Your task to perform on an android device: check battery use Image 0: 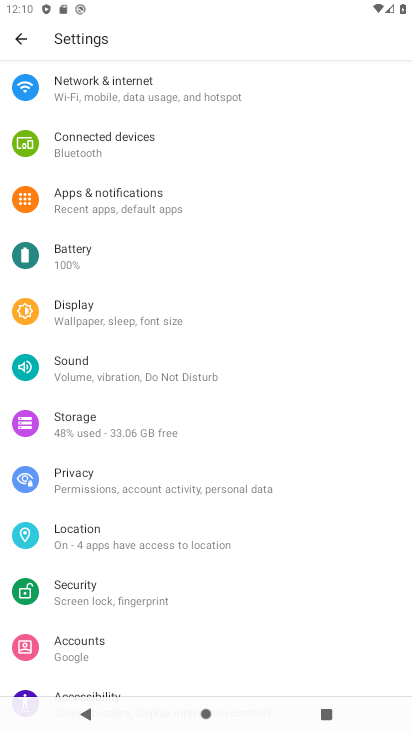
Step 0: press home button
Your task to perform on an android device: check battery use Image 1: 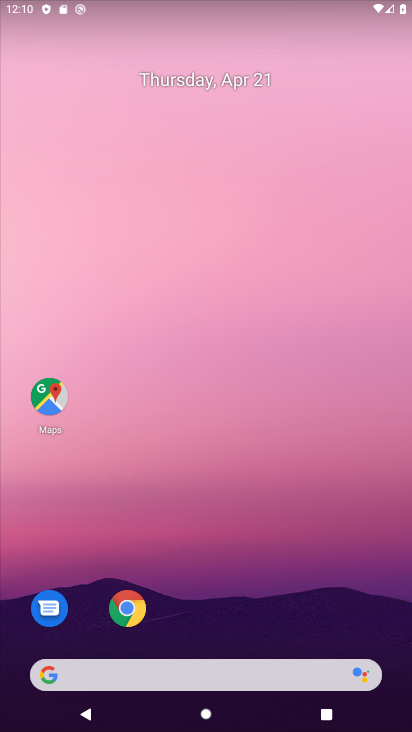
Step 1: drag from (201, 610) to (245, 240)
Your task to perform on an android device: check battery use Image 2: 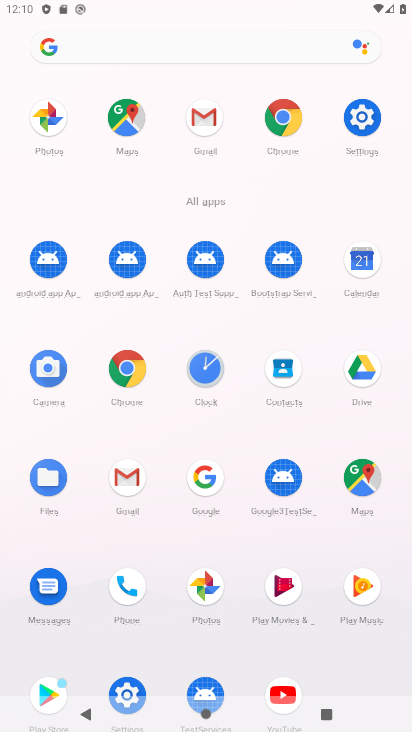
Step 2: click (364, 118)
Your task to perform on an android device: check battery use Image 3: 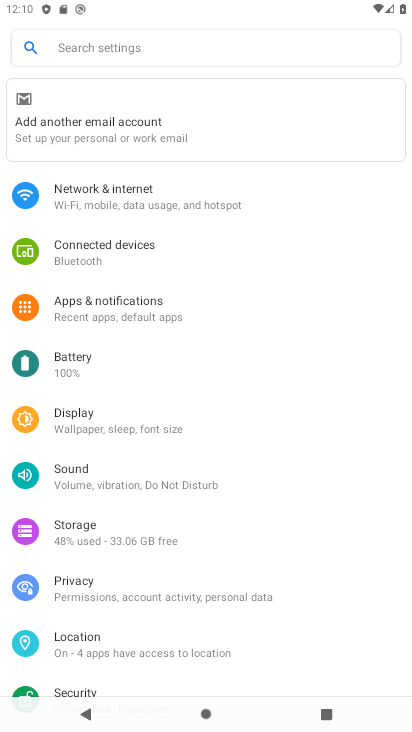
Step 3: click (107, 367)
Your task to perform on an android device: check battery use Image 4: 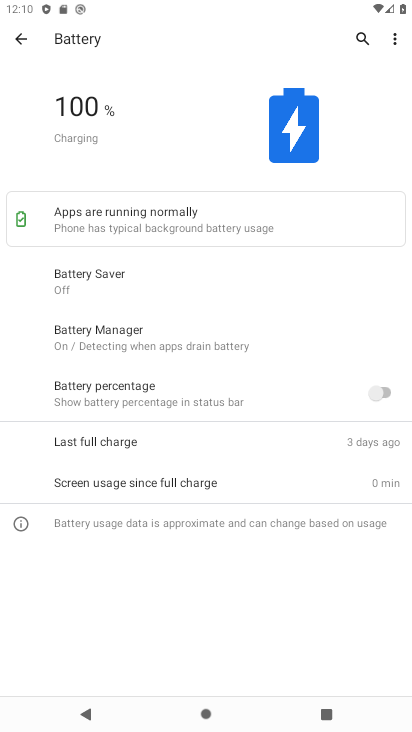
Step 4: task complete